Your task to perform on an android device: set default search engine in the chrome app Image 0: 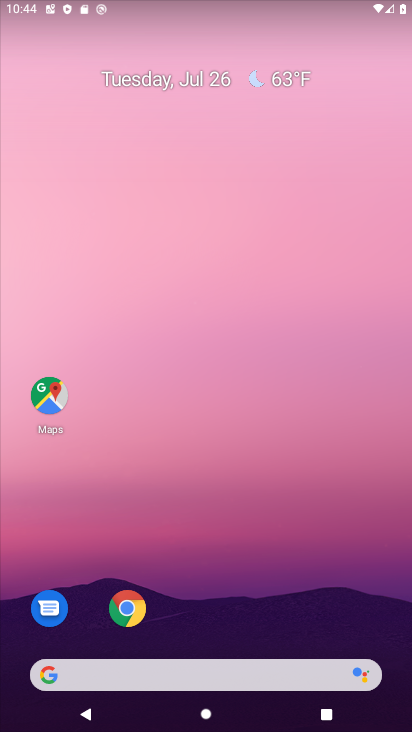
Step 0: press home button
Your task to perform on an android device: set default search engine in the chrome app Image 1: 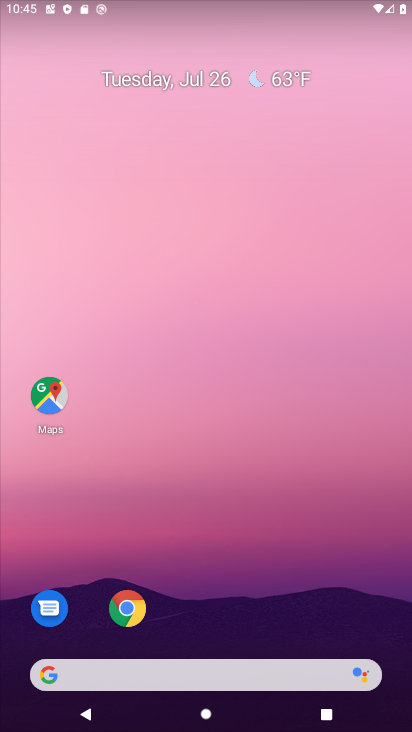
Step 1: press home button
Your task to perform on an android device: set default search engine in the chrome app Image 2: 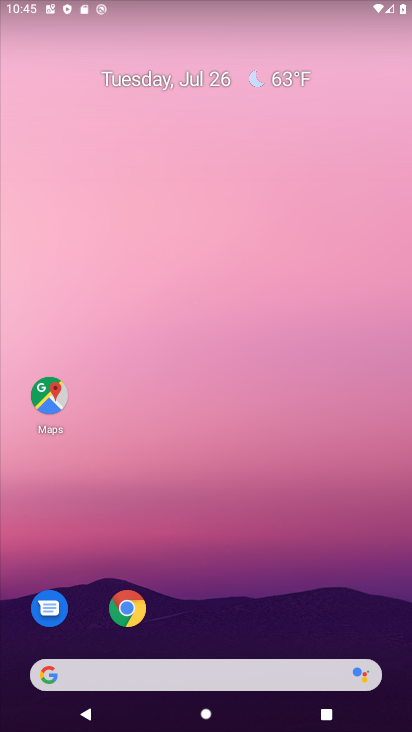
Step 2: click (125, 607)
Your task to perform on an android device: set default search engine in the chrome app Image 3: 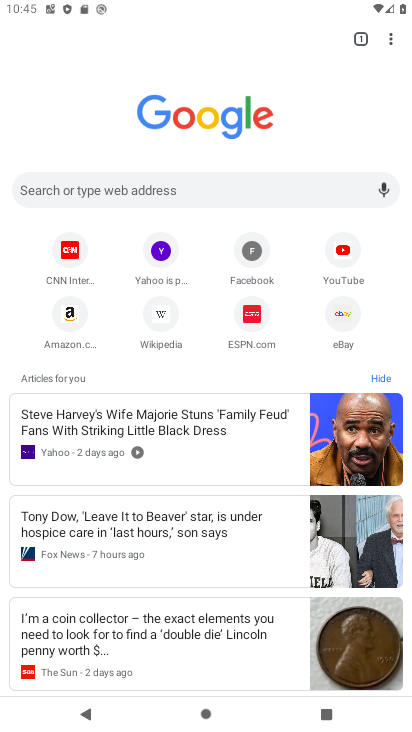
Step 3: drag from (386, 42) to (249, 327)
Your task to perform on an android device: set default search engine in the chrome app Image 4: 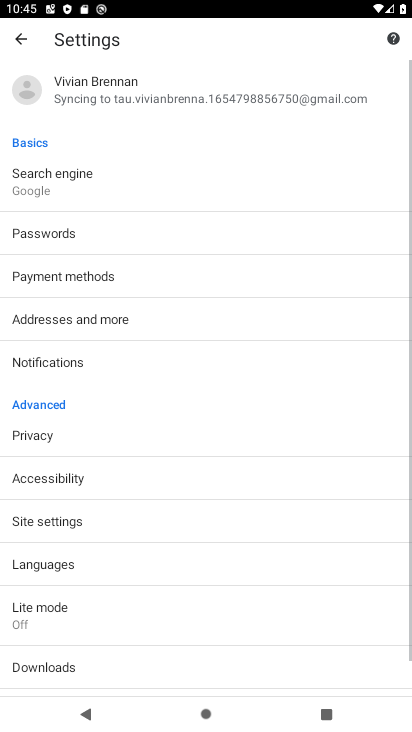
Step 4: click (60, 169)
Your task to perform on an android device: set default search engine in the chrome app Image 5: 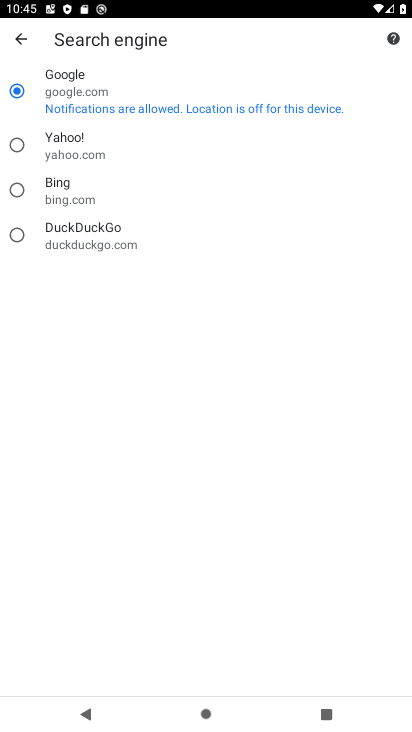
Step 5: task complete